Your task to perform on an android device: clear history in the chrome app Image 0: 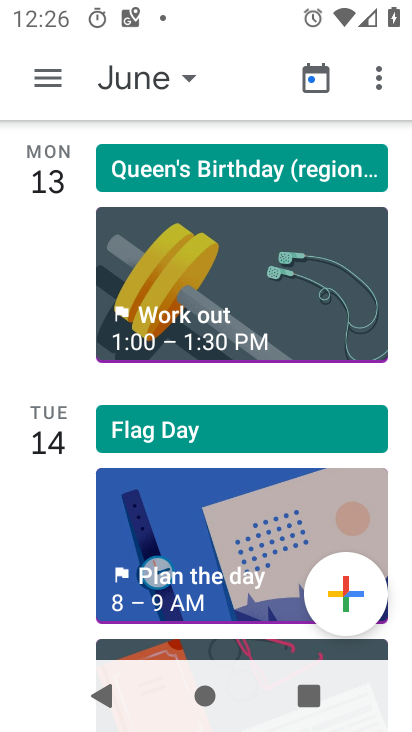
Step 0: press home button
Your task to perform on an android device: clear history in the chrome app Image 1: 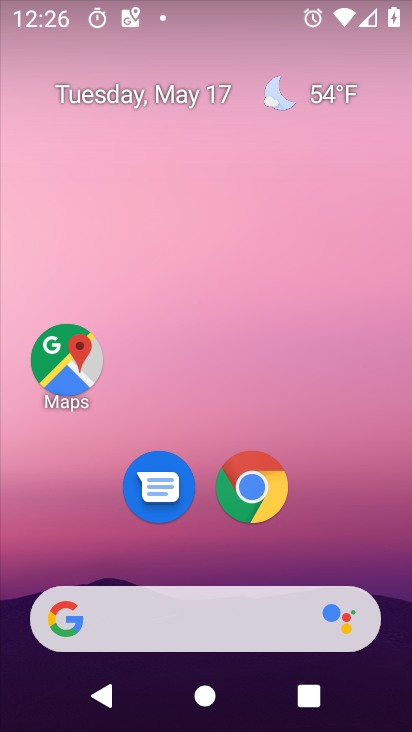
Step 1: click (263, 486)
Your task to perform on an android device: clear history in the chrome app Image 2: 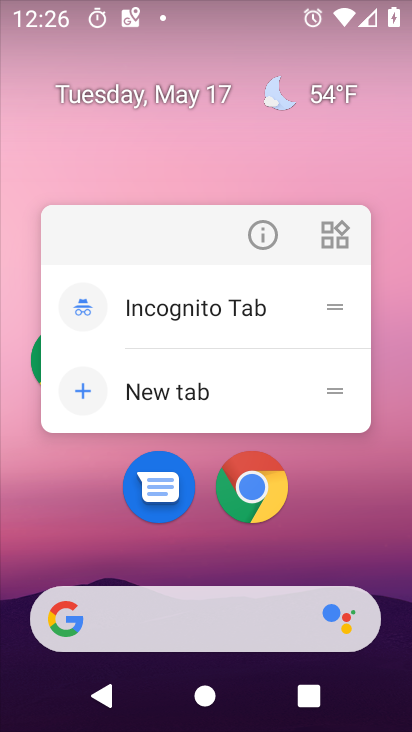
Step 2: click (253, 500)
Your task to perform on an android device: clear history in the chrome app Image 3: 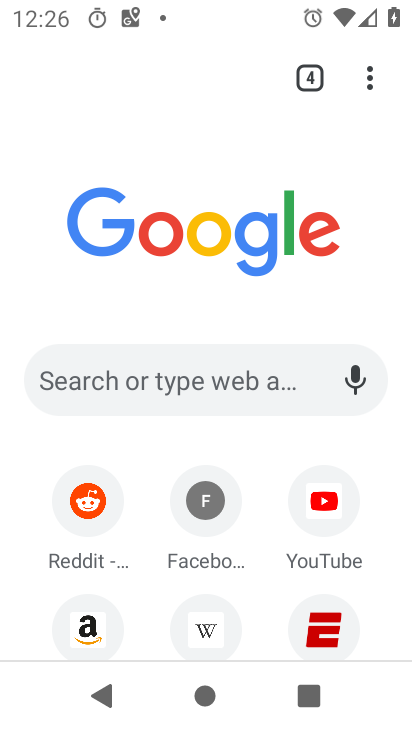
Step 3: drag from (369, 78) to (125, 436)
Your task to perform on an android device: clear history in the chrome app Image 4: 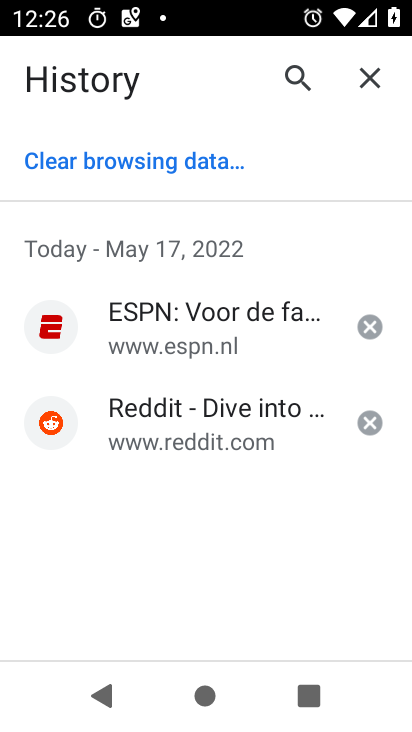
Step 4: click (201, 175)
Your task to perform on an android device: clear history in the chrome app Image 5: 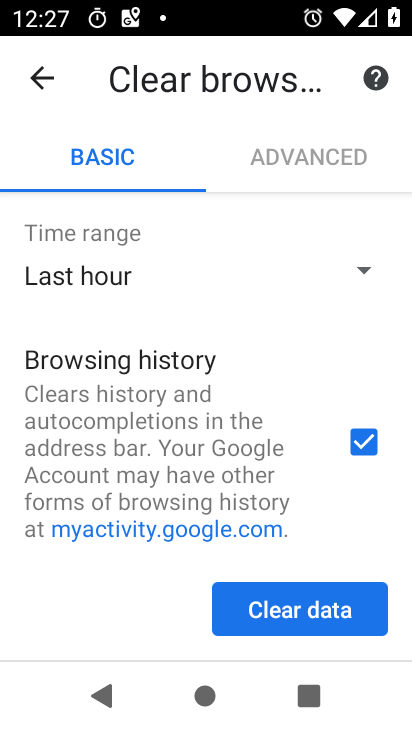
Step 5: drag from (190, 476) to (201, 565)
Your task to perform on an android device: clear history in the chrome app Image 6: 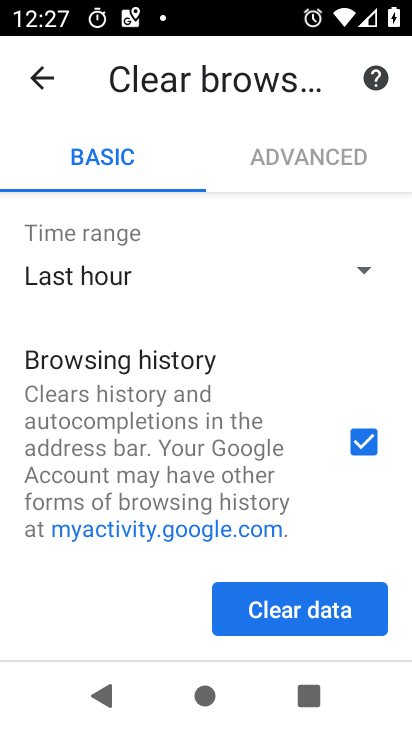
Step 6: click (290, 623)
Your task to perform on an android device: clear history in the chrome app Image 7: 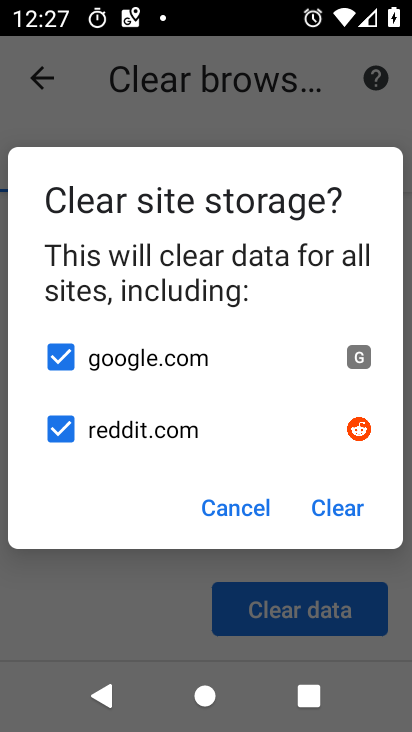
Step 7: click (349, 510)
Your task to perform on an android device: clear history in the chrome app Image 8: 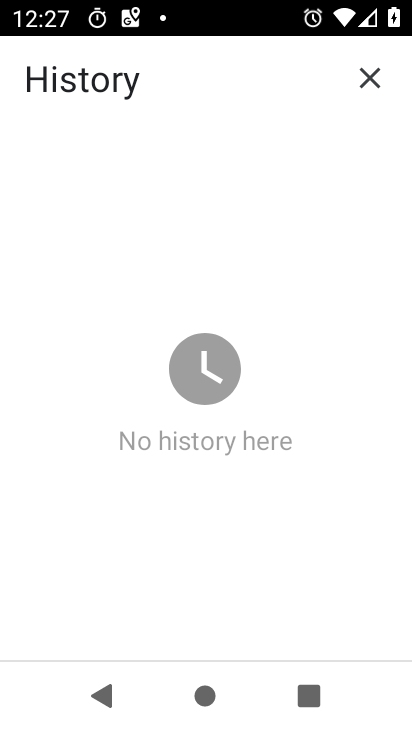
Step 8: task complete